Your task to perform on an android device: Open privacy settings Image 0: 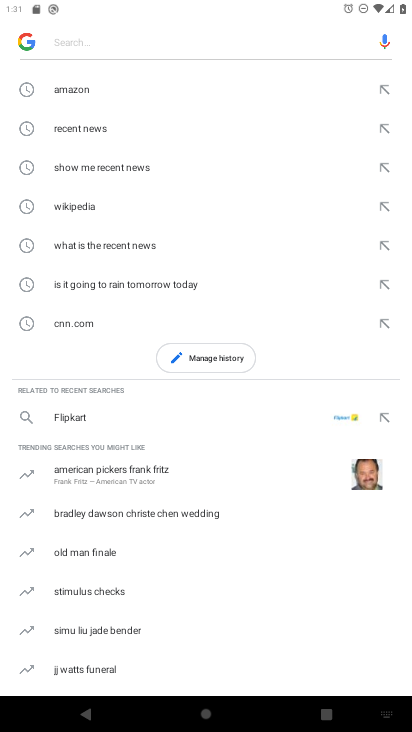
Step 0: press home button
Your task to perform on an android device: Open privacy settings Image 1: 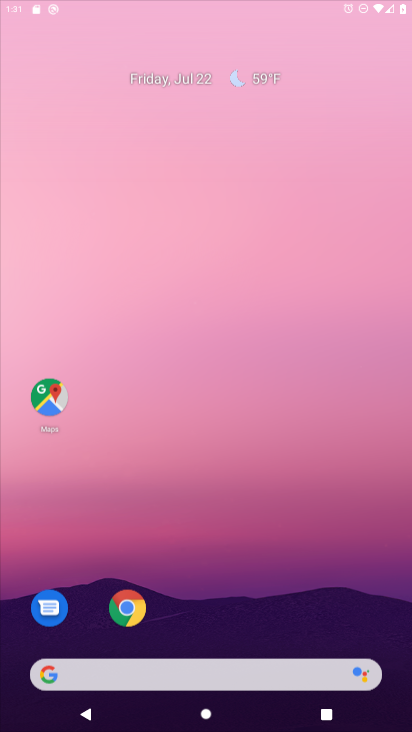
Step 1: drag from (406, 651) to (140, 31)
Your task to perform on an android device: Open privacy settings Image 2: 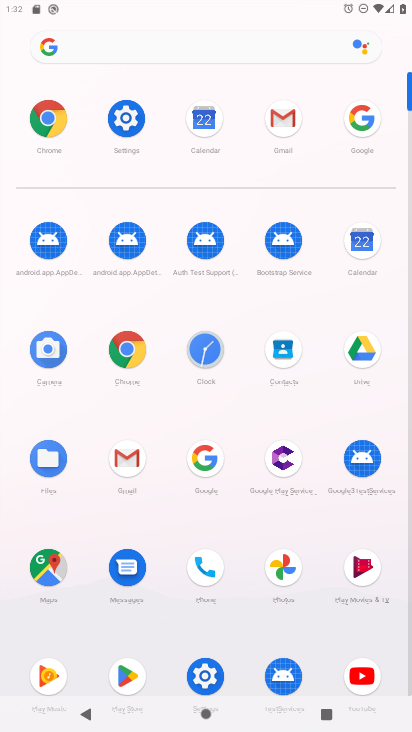
Step 2: click (203, 666)
Your task to perform on an android device: Open privacy settings Image 3: 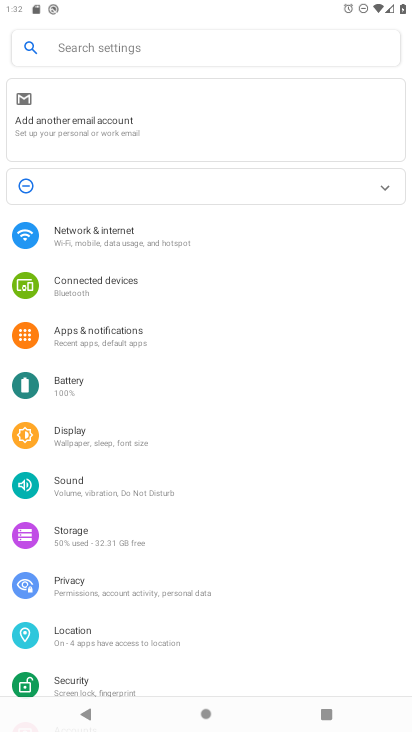
Step 3: drag from (82, 663) to (124, 518)
Your task to perform on an android device: Open privacy settings Image 4: 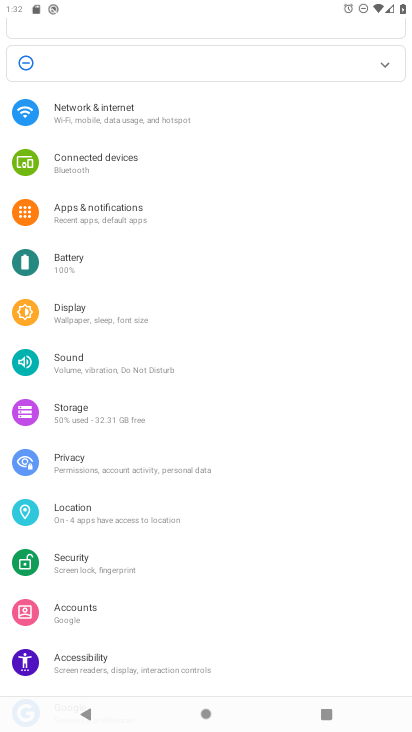
Step 4: click (77, 473)
Your task to perform on an android device: Open privacy settings Image 5: 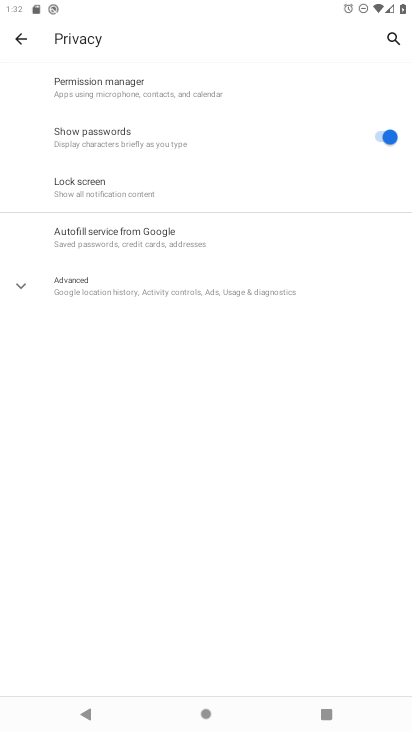
Step 5: task complete